Your task to perform on an android device: Open Google Chrome Image 0: 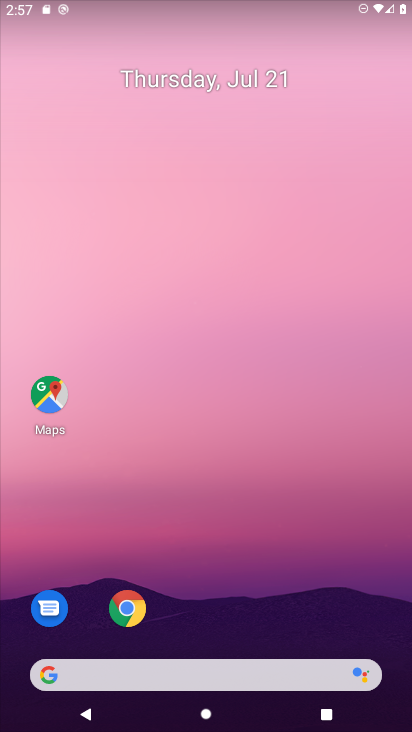
Step 0: click (126, 610)
Your task to perform on an android device: Open Google Chrome Image 1: 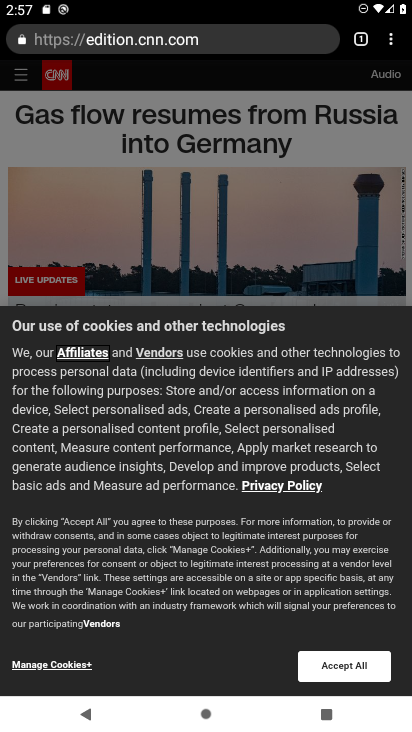
Step 1: task complete